Your task to perform on an android device: What's the weather today? Image 0: 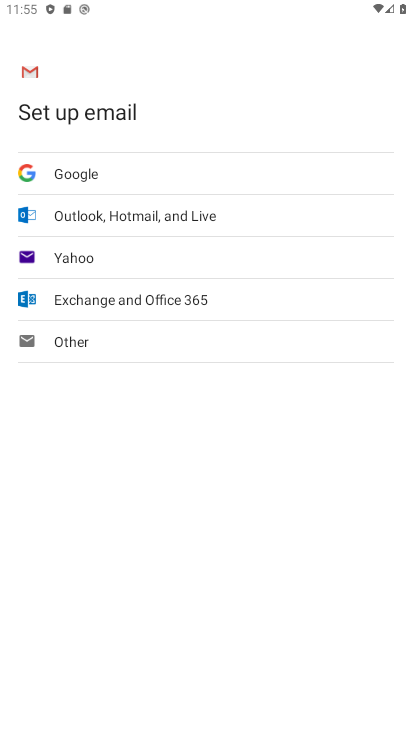
Step 0: press home button
Your task to perform on an android device: What's the weather today? Image 1: 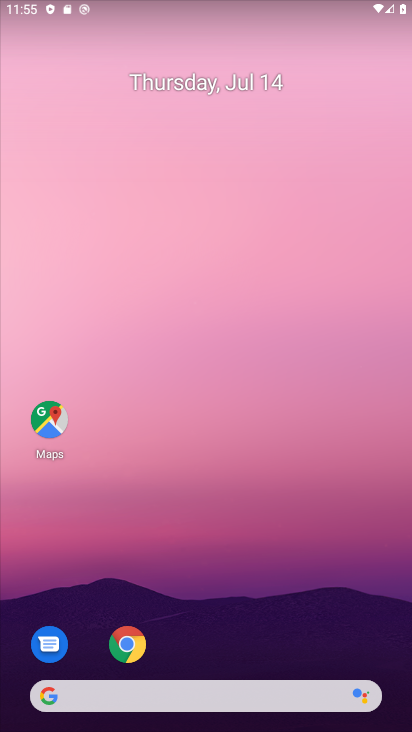
Step 1: drag from (220, 677) to (140, 108)
Your task to perform on an android device: What's the weather today? Image 2: 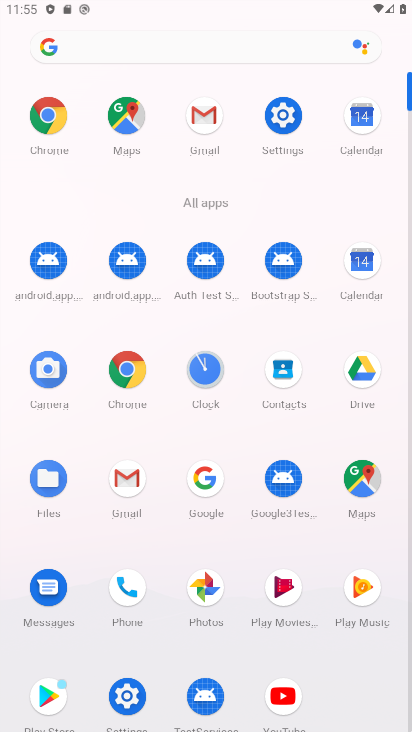
Step 2: click (188, 485)
Your task to perform on an android device: What's the weather today? Image 3: 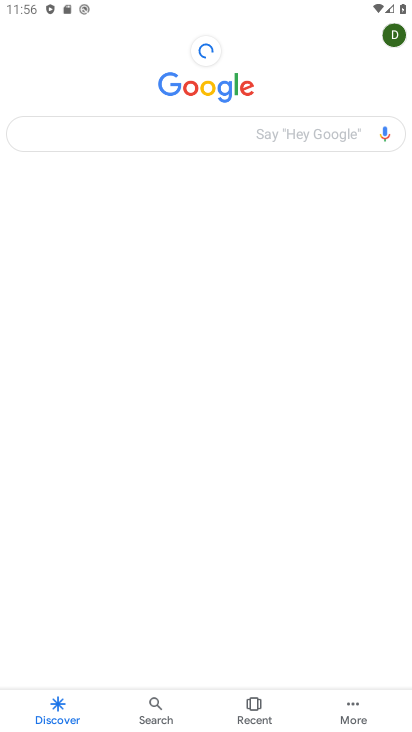
Step 3: click (164, 145)
Your task to perform on an android device: What's the weather today? Image 4: 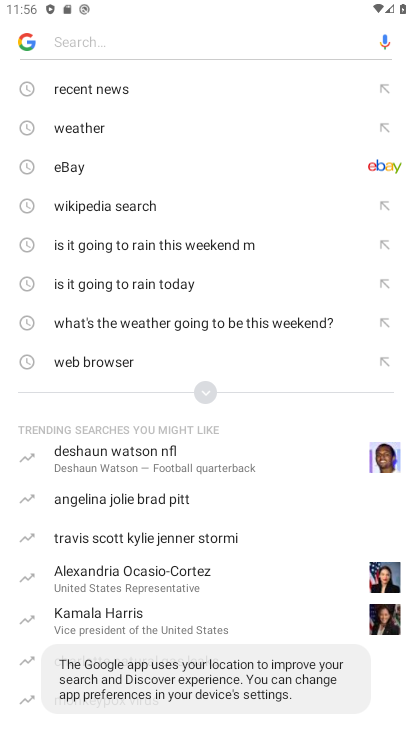
Step 4: click (104, 133)
Your task to perform on an android device: What's the weather today? Image 5: 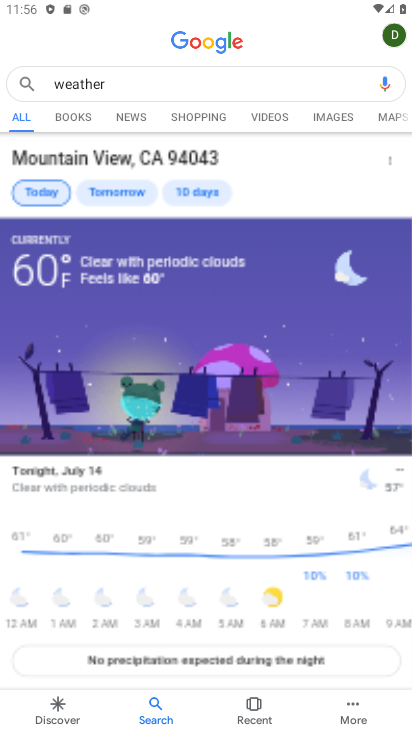
Step 5: click (49, 181)
Your task to perform on an android device: What's the weather today? Image 6: 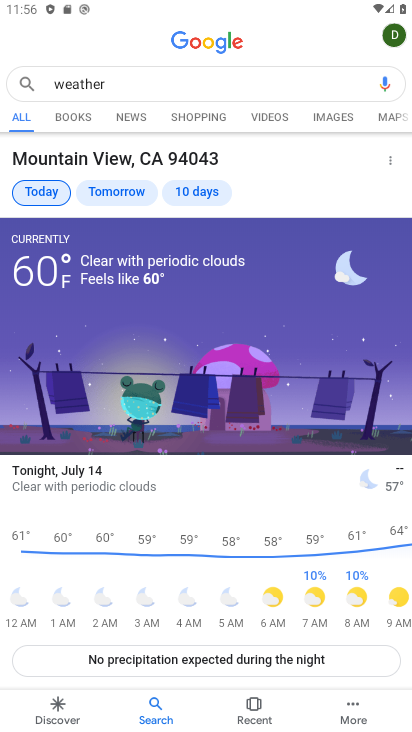
Step 6: task complete